Your task to perform on an android device: turn off notifications settings in the gmail app Image 0: 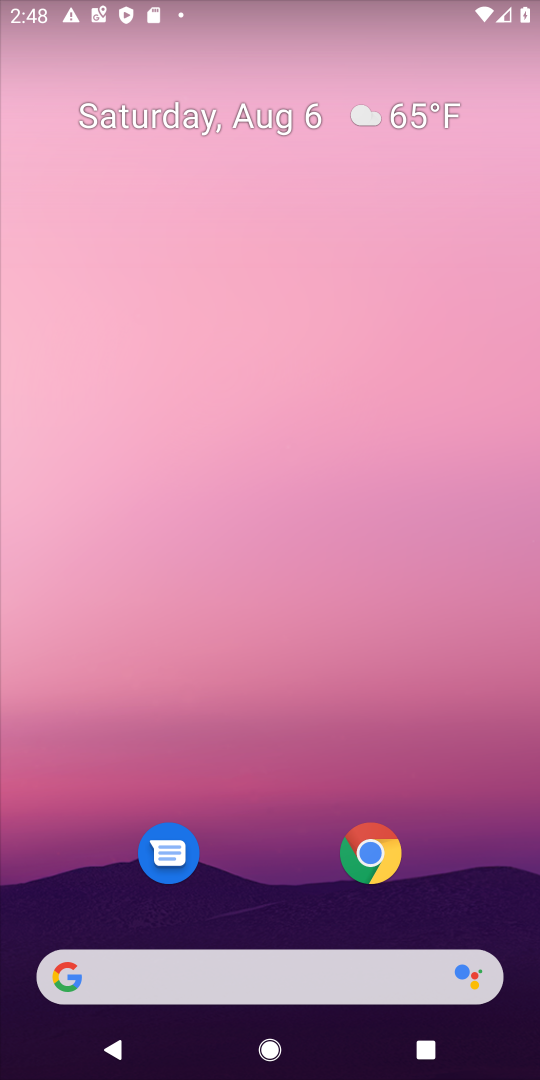
Step 0: drag from (295, 848) to (386, 87)
Your task to perform on an android device: turn off notifications settings in the gmail app Image 1: 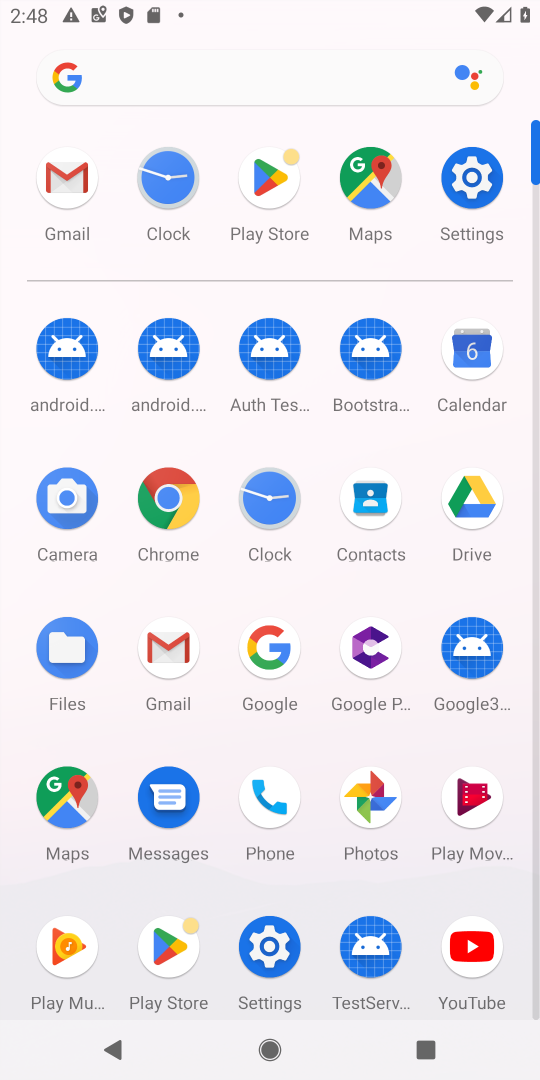
Step 1: click (67, 189)
Your task to perform on an android device: turn off notifications settings in the gmail app Image 2: 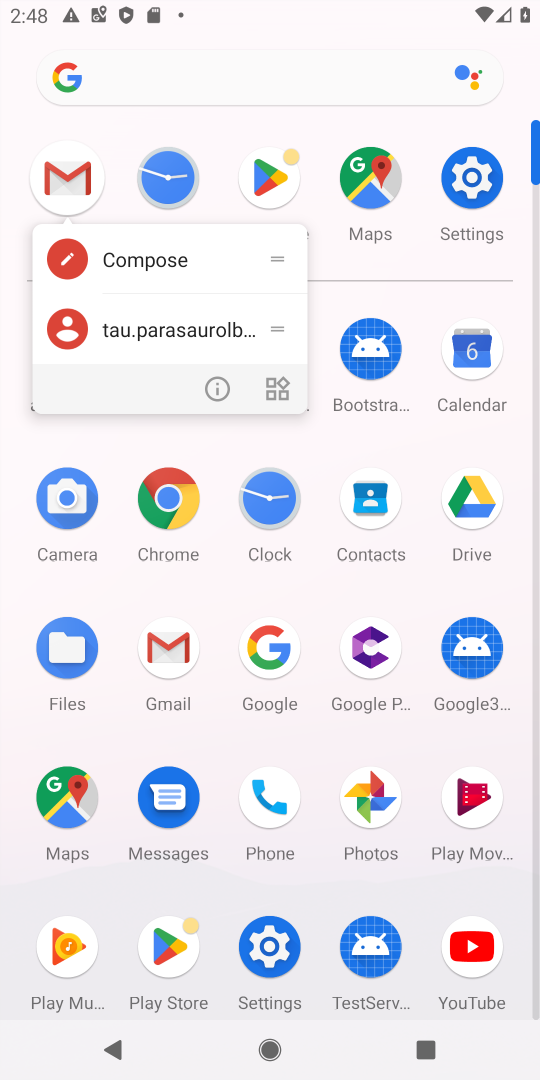
Step 2: click (230, 385)
Your task to perform on an android device: turn off notifications settings in the gmail app Image 3: 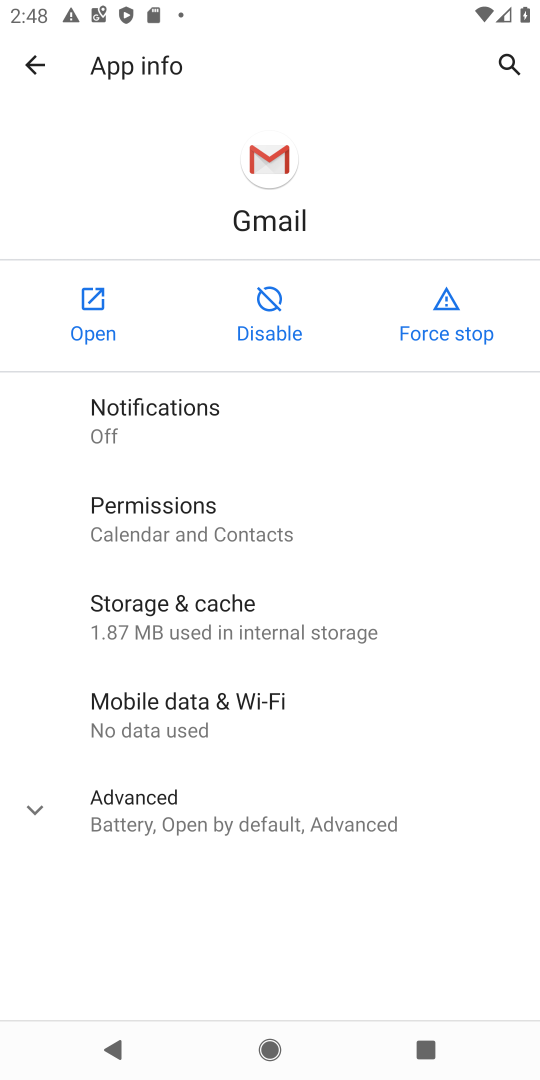
Step 3: click (199, 411)
Your task to perform on an android device: turn off notifications settings in the gmail app Image 4: 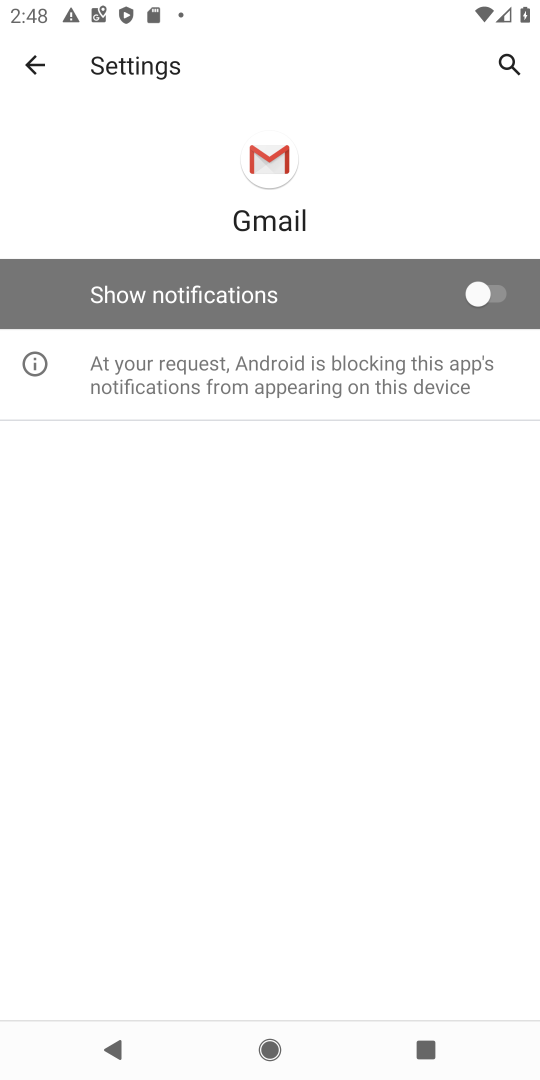
Step 4: task complete